Your task to perform on an android device: Check the weather Image 0: 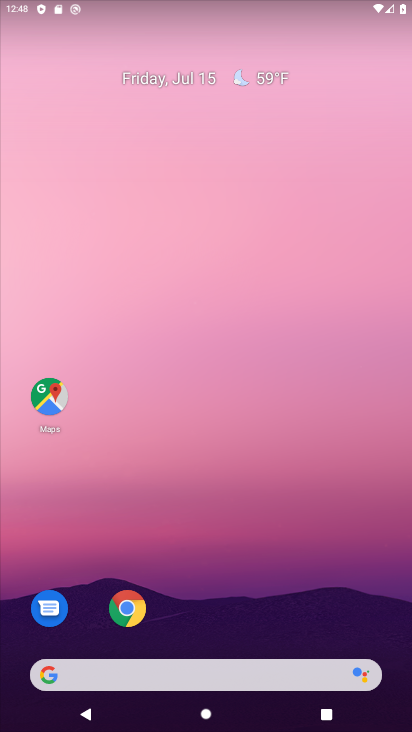
Step 0: drag from (216, 663) to (171, 270)
Your task to perform on an android device: Check the weather Image 1: 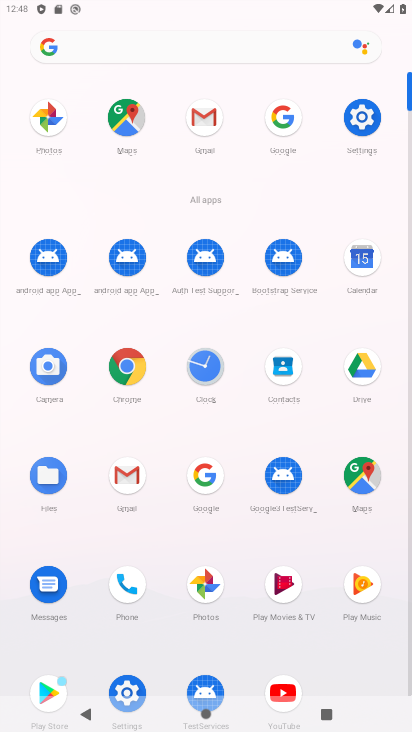
Step 1: click (286, 115)
Your task to perform on an android device: Check the weather Image 2: 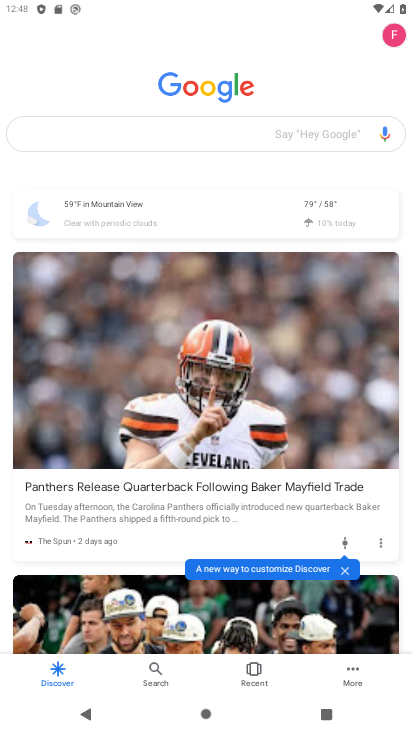
Step 2: click (102, 128)
Your task to perform on an android device: Check the weather Image 3: 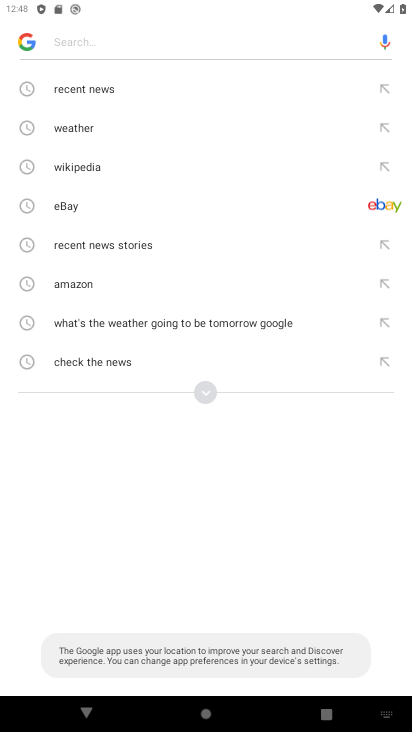
Step 3: click (95, 128)
Your task to perform on an android device: Check the weather Image 4: 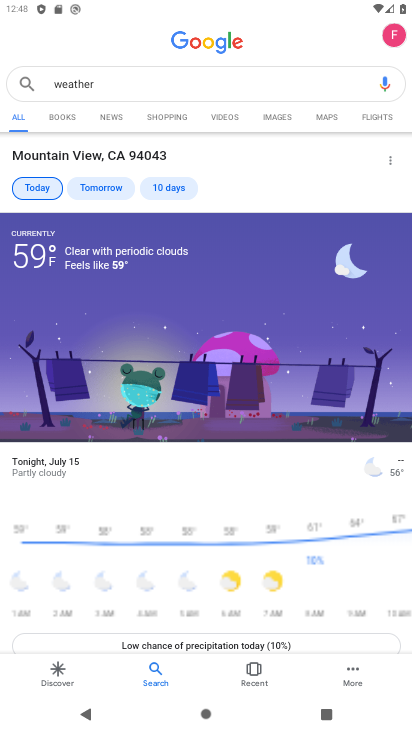
Step 4: task complete